Your task to perform on an android device: Is it going to rain this weekend? Image 0: 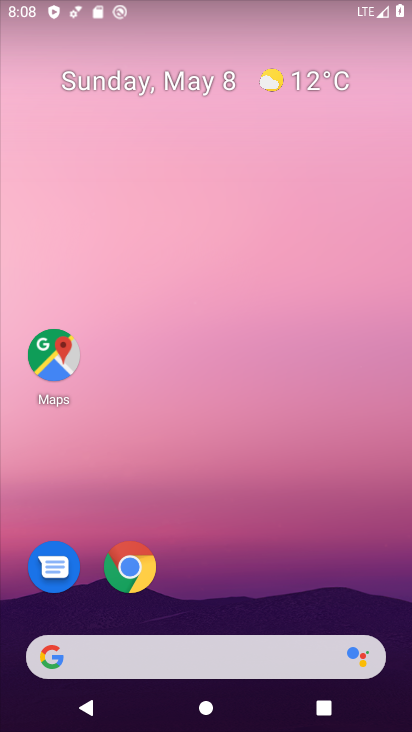
Step 0: click (312, 70)
Your task to perform on an android device: Is it going to rain this weekend? Image 1: 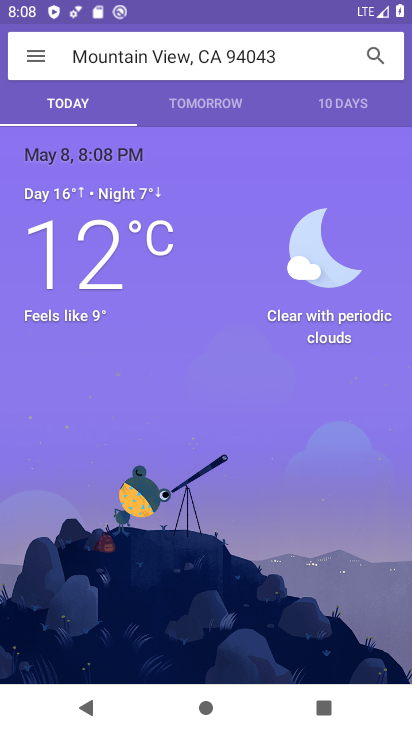
Step 1: click (342, 107)
Your task to perform on an android device: Is it going to rain this weekend? Image 2: 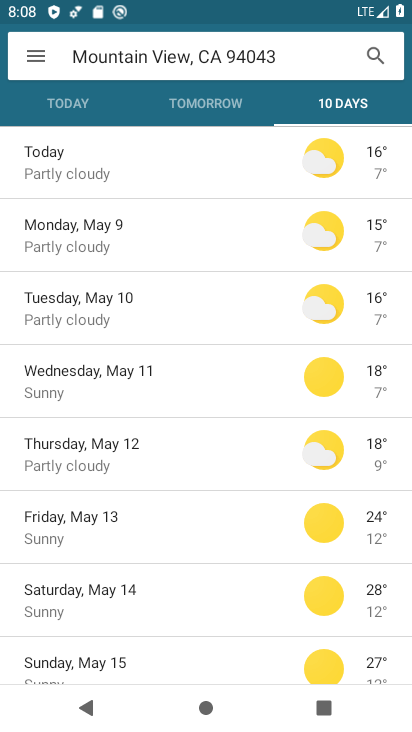
Step 2: task complete